Your task to perform on an android device: set an alarm Image 0: 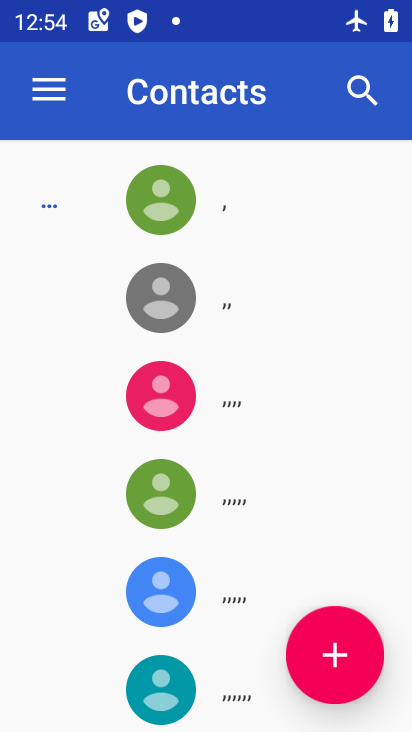
Step 0: press home button
Your task to perform on an android device: set an alarm Image 1: 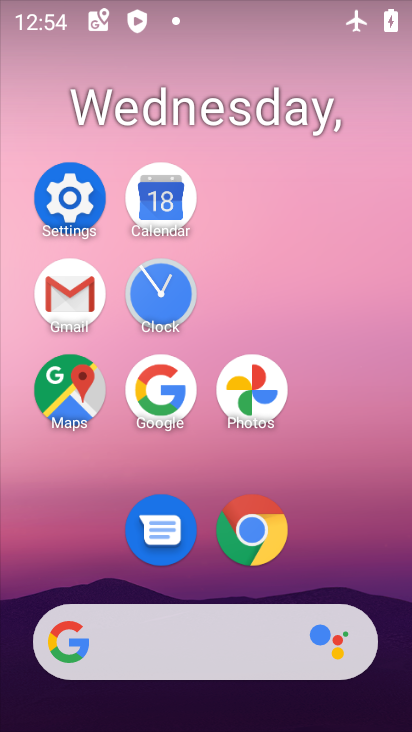
Step 1: click (169, 295)
Your task to perform on an android device: set an alarm Image 2: 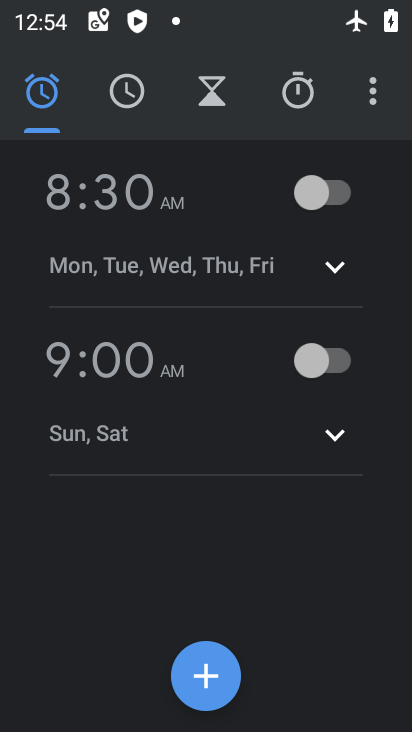
Step 2: click (309, 196)
Your task to perform on an android device: set an alarm Image 3: 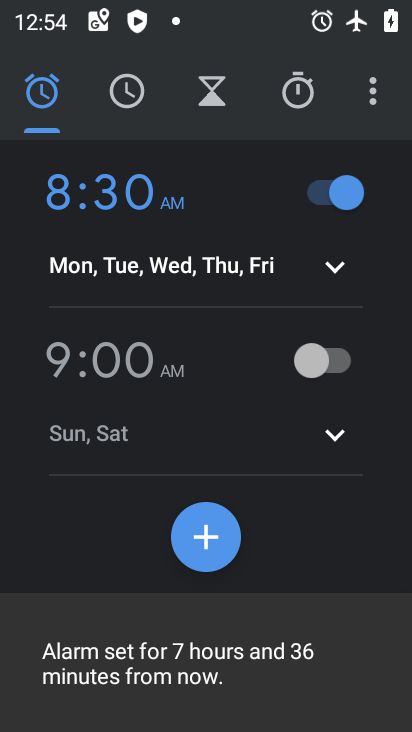
Step 3: task complete